Your task to perform on an android device: turn off improve location accuracy Image 0: 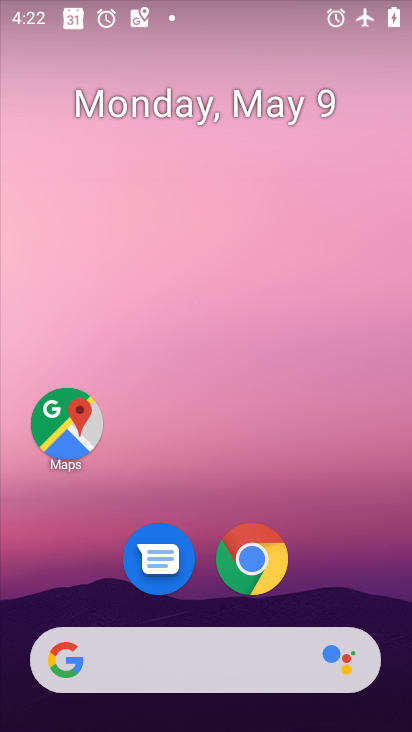
Step 0: drag from (219, 686) to (204, 157)
Your task to perform on an android device: turn off improve location accuracy Image 1: 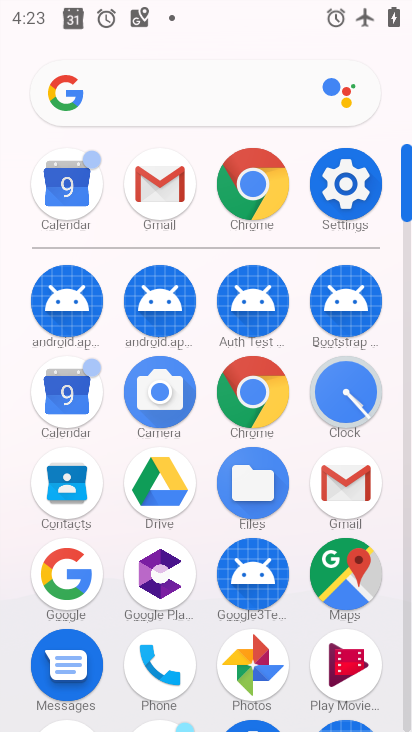
Step 1: click (334, 184)
Your task to perform on an android device: turn off improve location accuracy Image 2: 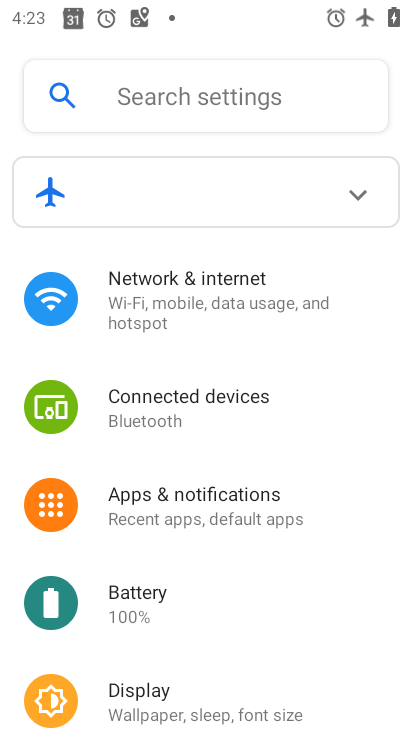
Step 2: drag from (199, 670) to (190, 253)
Your task to perform on an android device: turn off improve location accuracy Image 3: 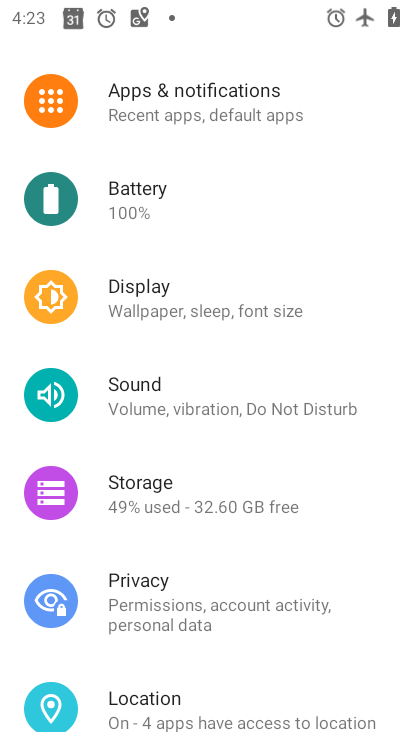
Step 3: click (149, 698)
Your task to perform on an android device: turn off improve location accuracy Image 4: 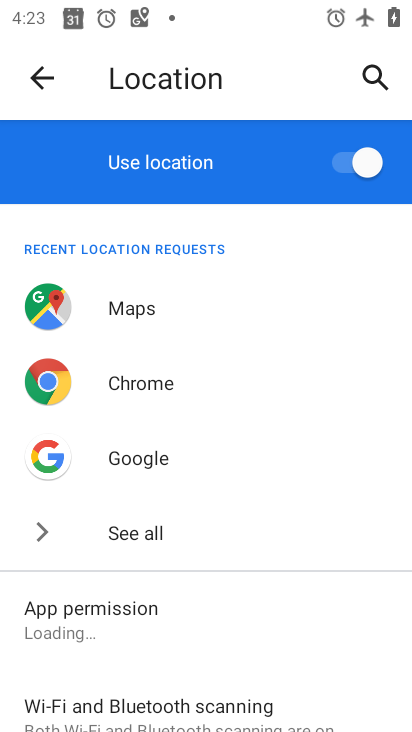
Step 4: drag from (172, 685) to (174, 383)
Your task to perform on an android device: turn off improve location accuracy Image 5: 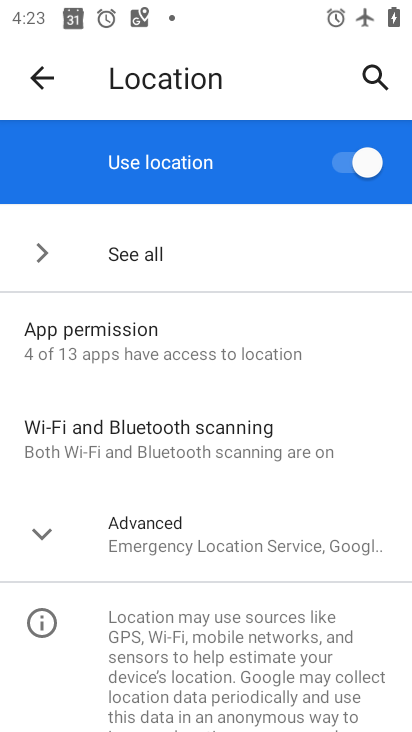
Step 5: drag from (203, 652) to (210, 581)
Your task to perform on an android device: turn off improve location accuracy Image 6: 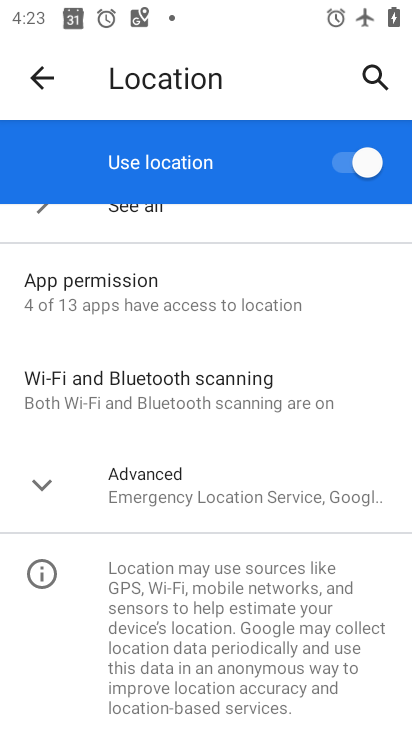
Step 6: click (214, 490)
Your task to perform on an android device: turn off improve location accuracy Image 7: 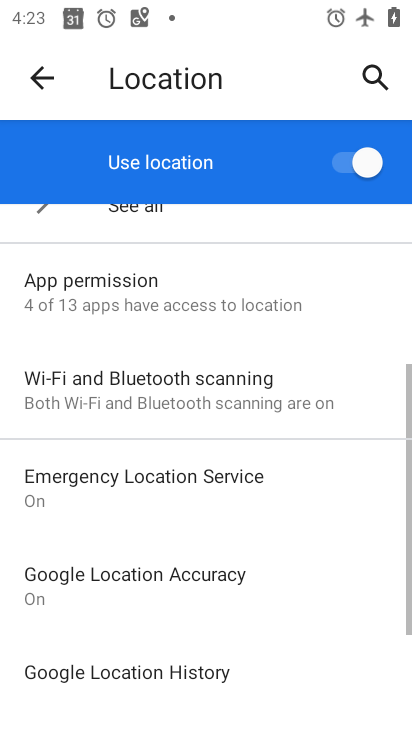
Step 7: drag from (203, 671) to (207, 467)
Your task to perform on an android device: turn off improve location accuracy Image 8: 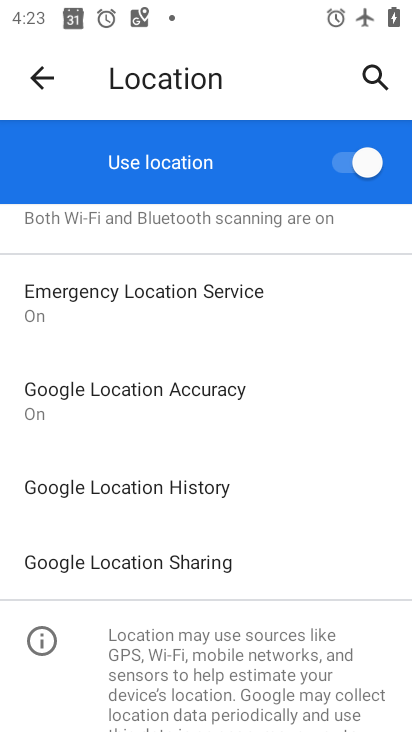
Step 8: click (161, 383)
Your task to perform on an android device: turn off improve location accuracy Image 9: 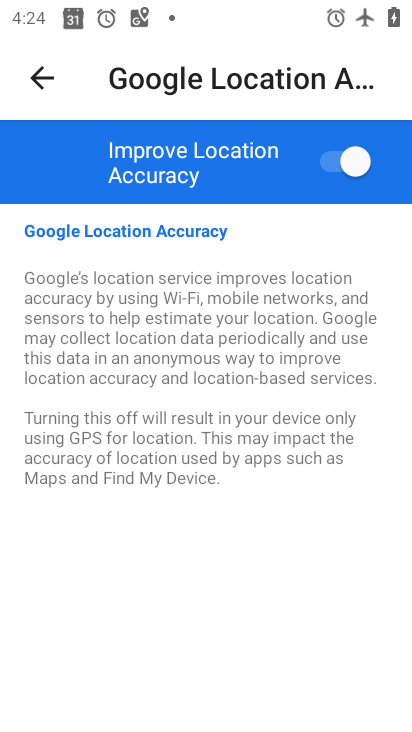
Step 9: click (330, 157)
Your task to perform on an android device: turn off improve location accuracy Image 10: 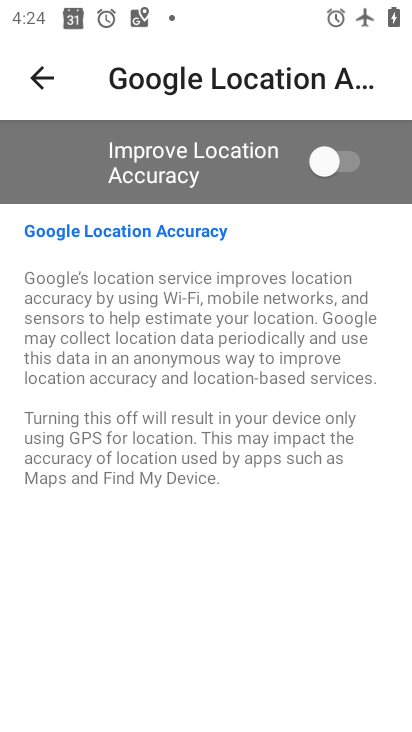
Step 10: task complete